Your task to perform on an android device: change the clock display to analog Image 0: 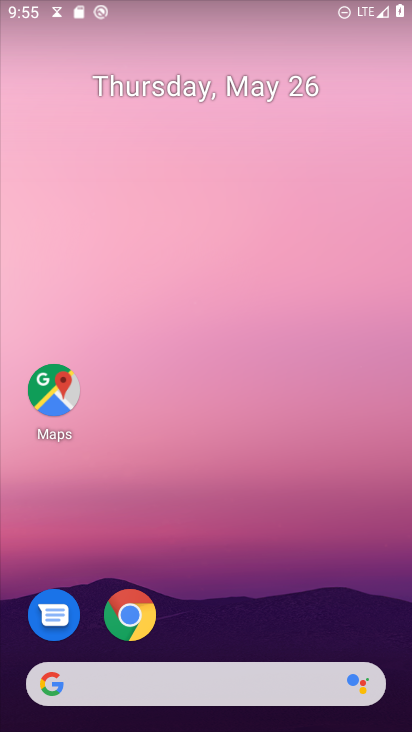
Step 0: drag from (242, 636) to (304, 352)
Your task to perform on an android device: change the clock display to analog Image 1: 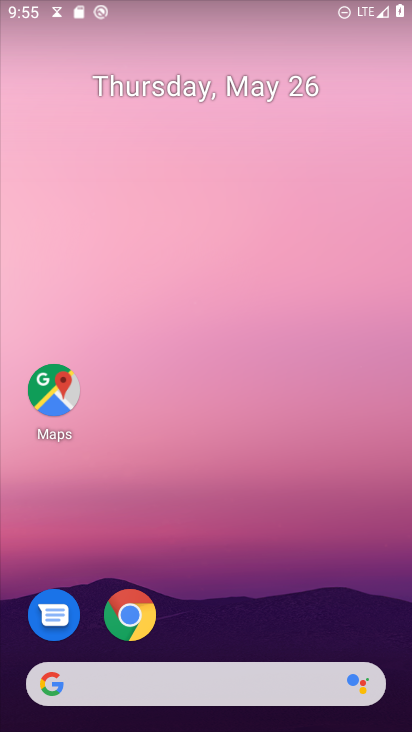
Step 1: drag from (248, 629) to (280, 229)
Your task to perform on an android device: change the clock display to analog Image 2: 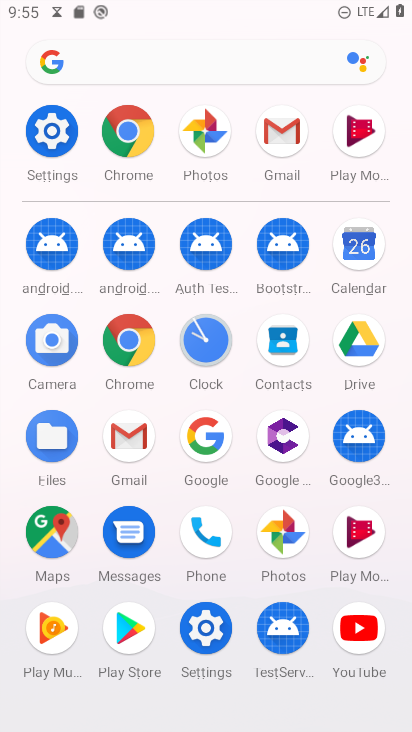
Step 2: click (206, 337)
Your task to perform on an android device: change the clock display to analog Image 3: 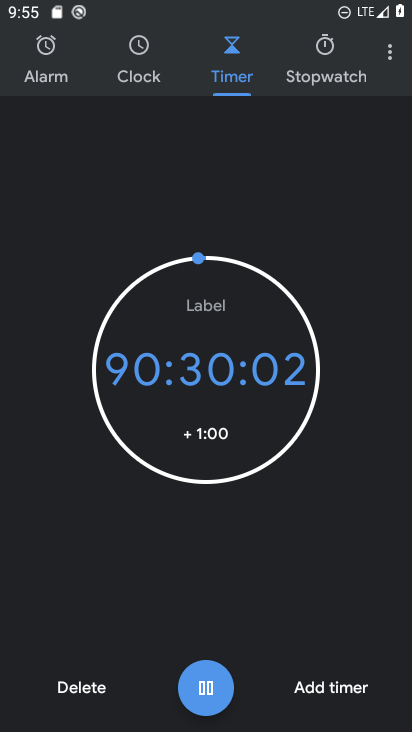
Step 3: click (383, 52)
Your task to perform on an android device: change the clock display to analog Image 4: 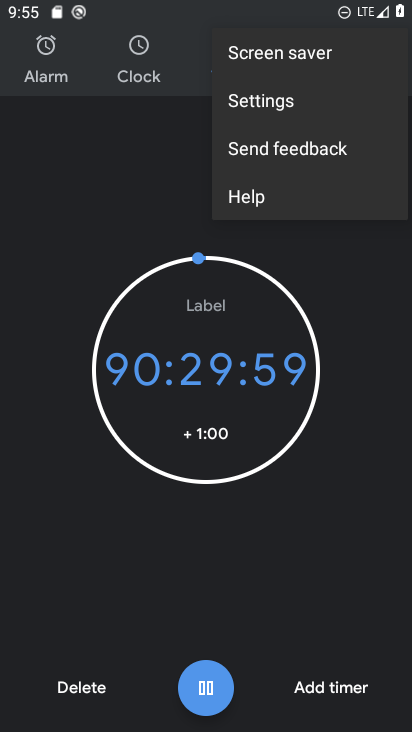
Step 4: click (271, 115)
Your task to perform on an android device: change the clock display to analog Image 5: 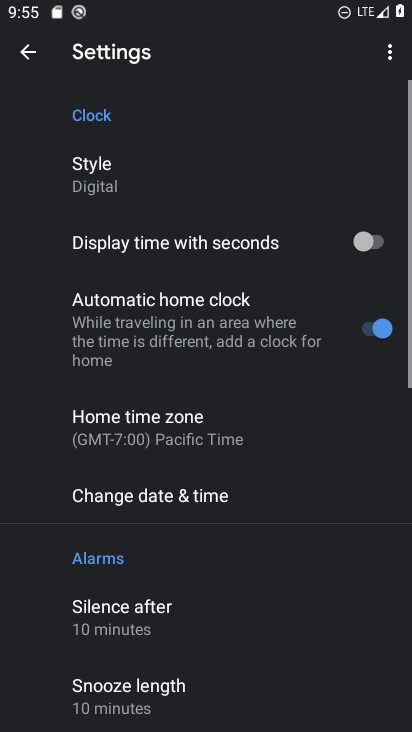
Step 5: click (125, 174)
Your task to perform on an android device: change the clock display to analog Image 6: 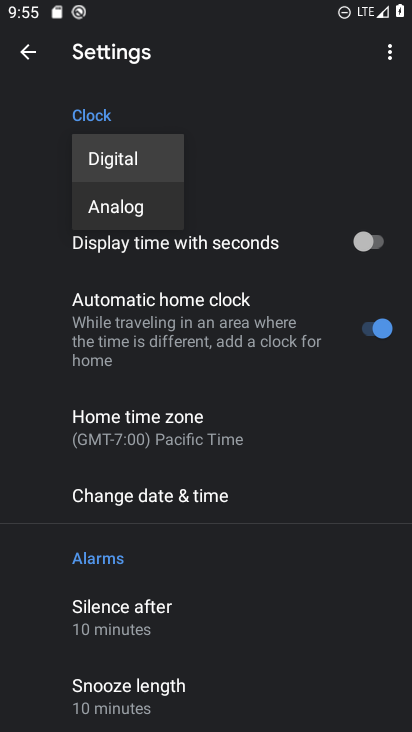
Step 6: click (133, 204)
Your task to perform on an android device: change the clock display to analog Image 7: 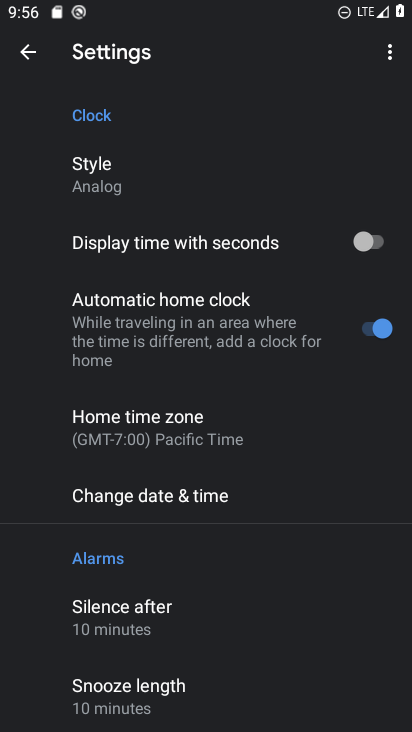
Step 7: task complete